Your task to perform on an android device: turn on data saver in the chrome app Image 0: 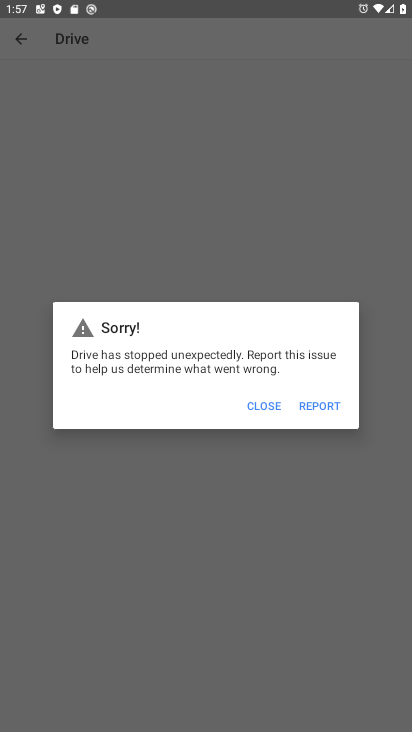
Step 0: press home button
Your task to perform on an android device: turn on data saver in the chrome app Image 1: 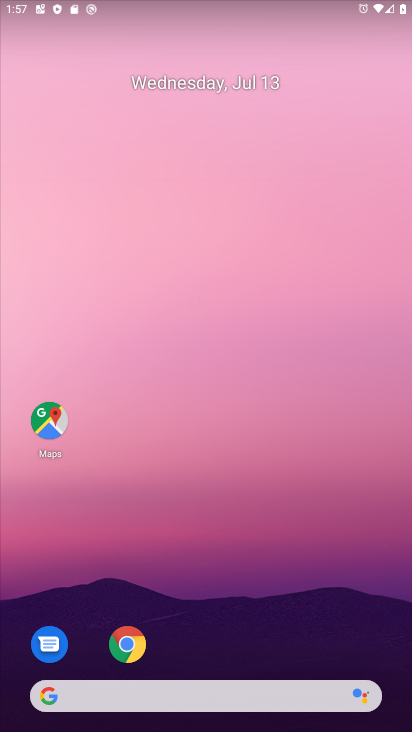
Step 1: click (138, 644)
Your task to perform on an android device: turn on data saver in the chrome app Image 2: 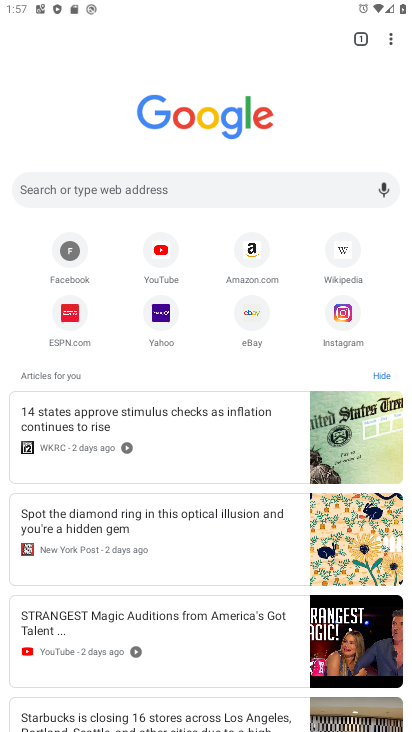
Step 2: drag from (391, 38) to (255, 325)
Your task to perform on an android device: turn on data saver in the chrome app Image 3: 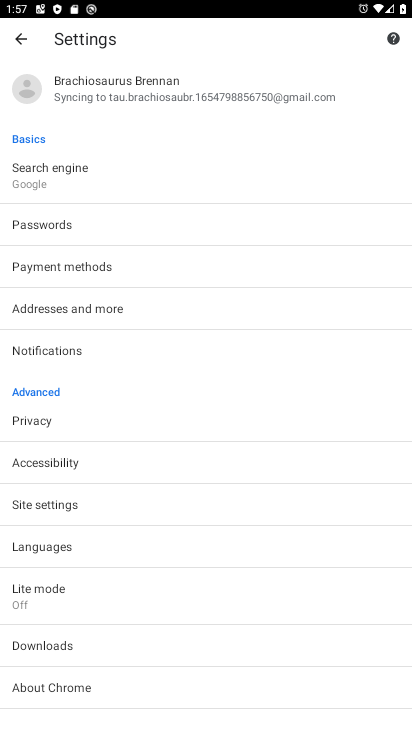
Step 3: click (50, 605)
Your task to perform on an android device: turn on data saver in the chrome app Image 4: 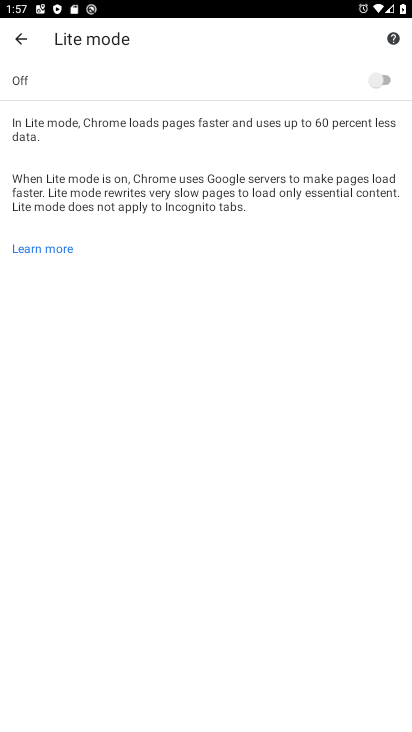
Step 4: click (376, 73)
Your task to perform on an android device: turn on data saver in the chrome app Image 5: 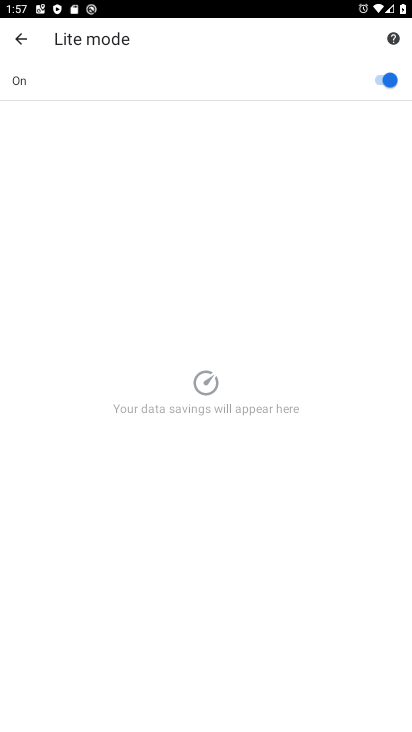
Step 5: task complete